Your task to perform on an android device: See recent photos Image 0: 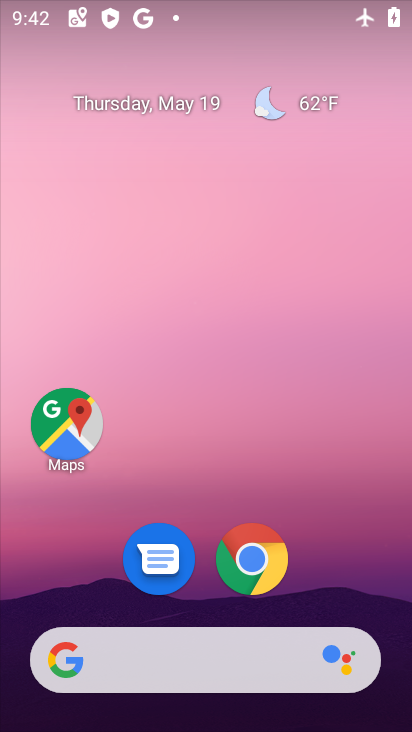
Step 0: drag from (339, 550) to (330, 155)
Your task to perform on an android device: See recent photos Image 1: 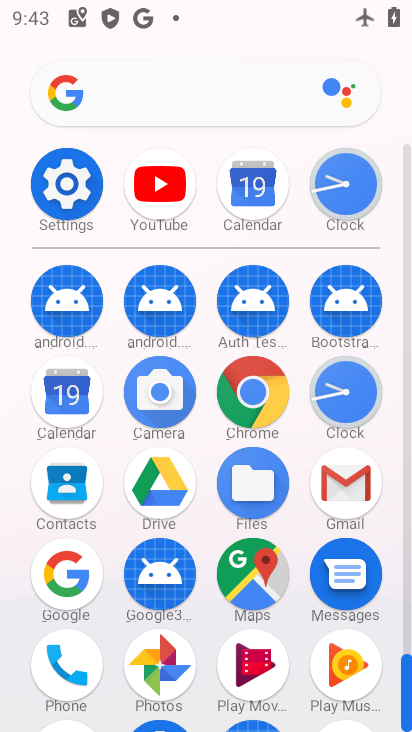
Step 1: click (173, 655)
Your task to perform on an android device: See recent photos Image 2: 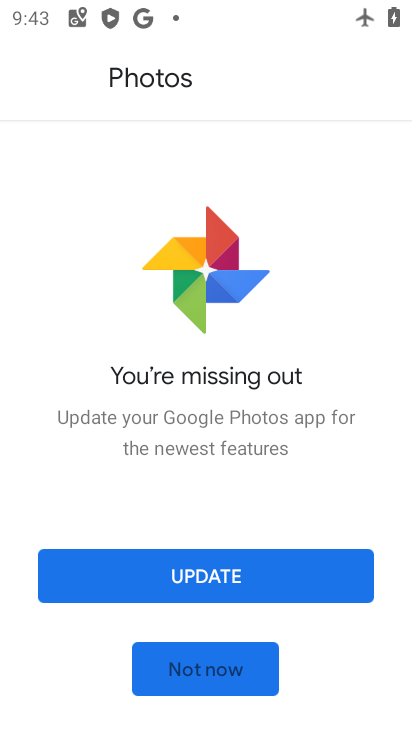
Step 2: click (238, 576)
Your task to perform on an android device: See recent photos Image 3: 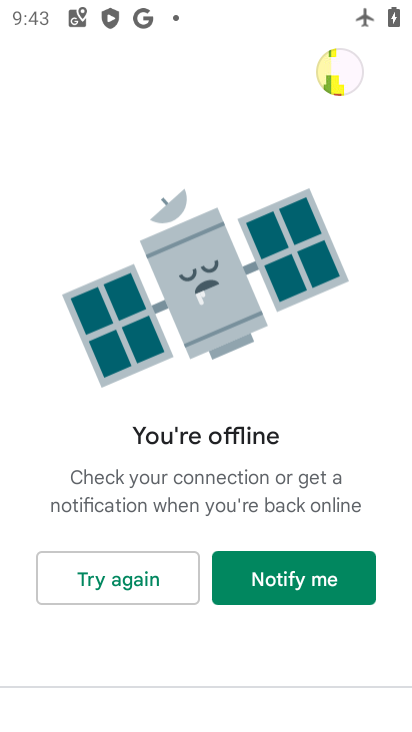
Step 3: task complete